Your task to perform on an android device: Search for Mexican restaurants on Maps Image 0: 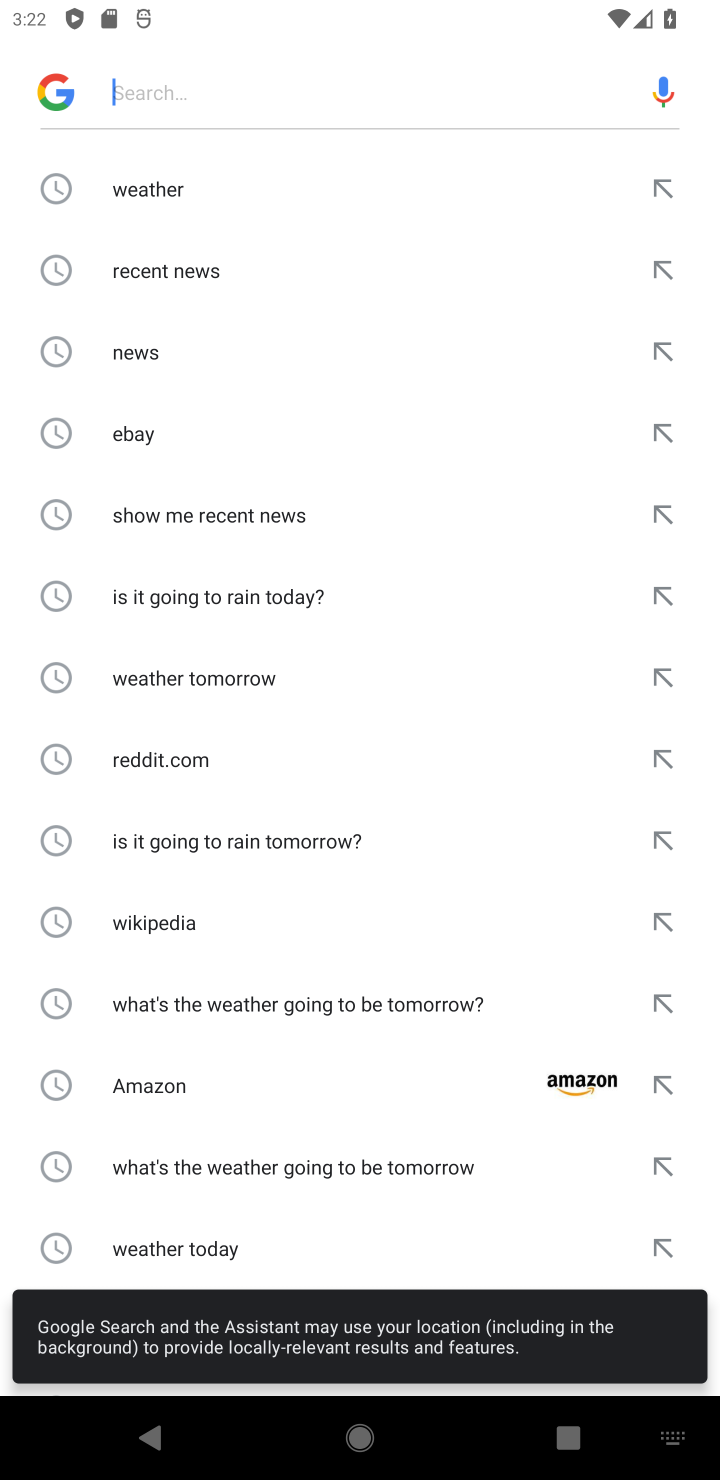
Step 0: press home button
Your task to perform on an android device: Search for Mexican restaurants on Maps Image 1: 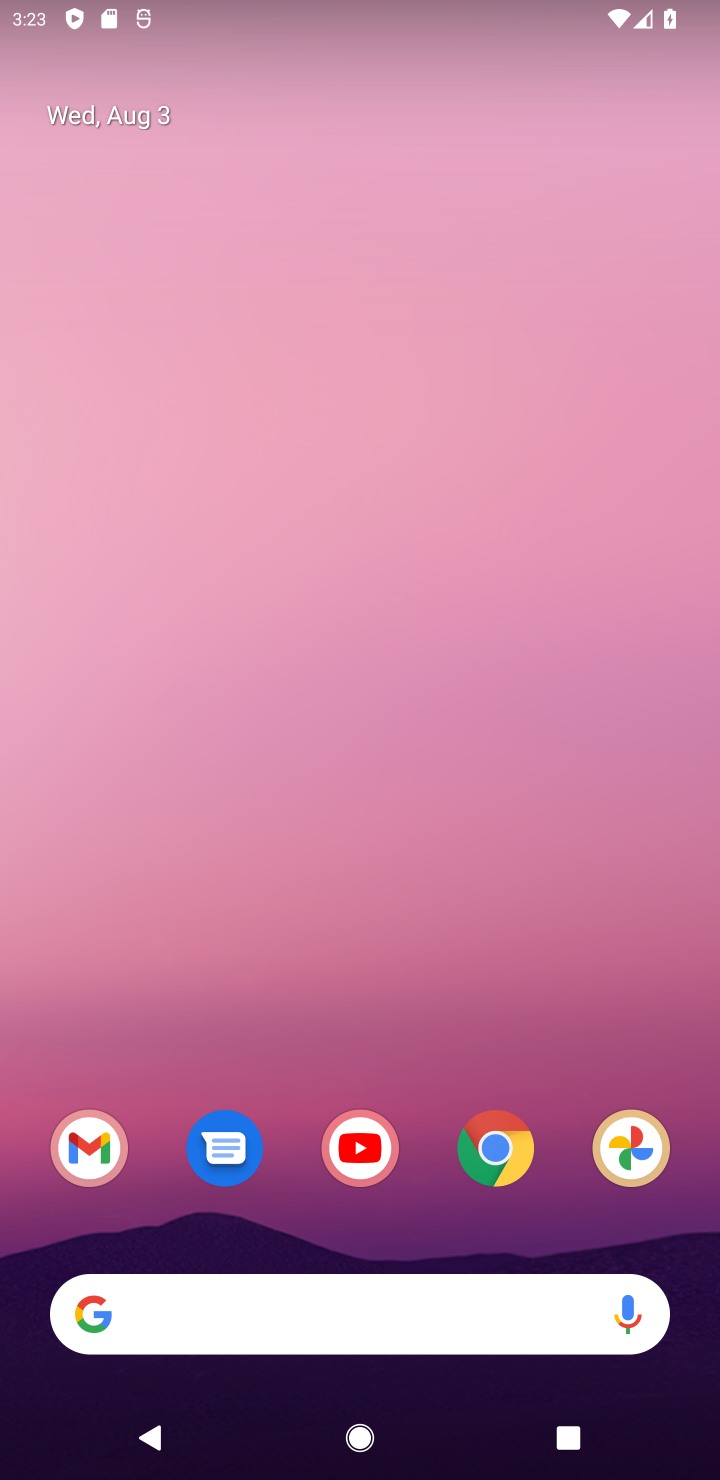
Step 1: drag from (413, 1112) to (418, 126)
Your task to perform on an android device: Search for Mexican restaurants on Maps Image 2: 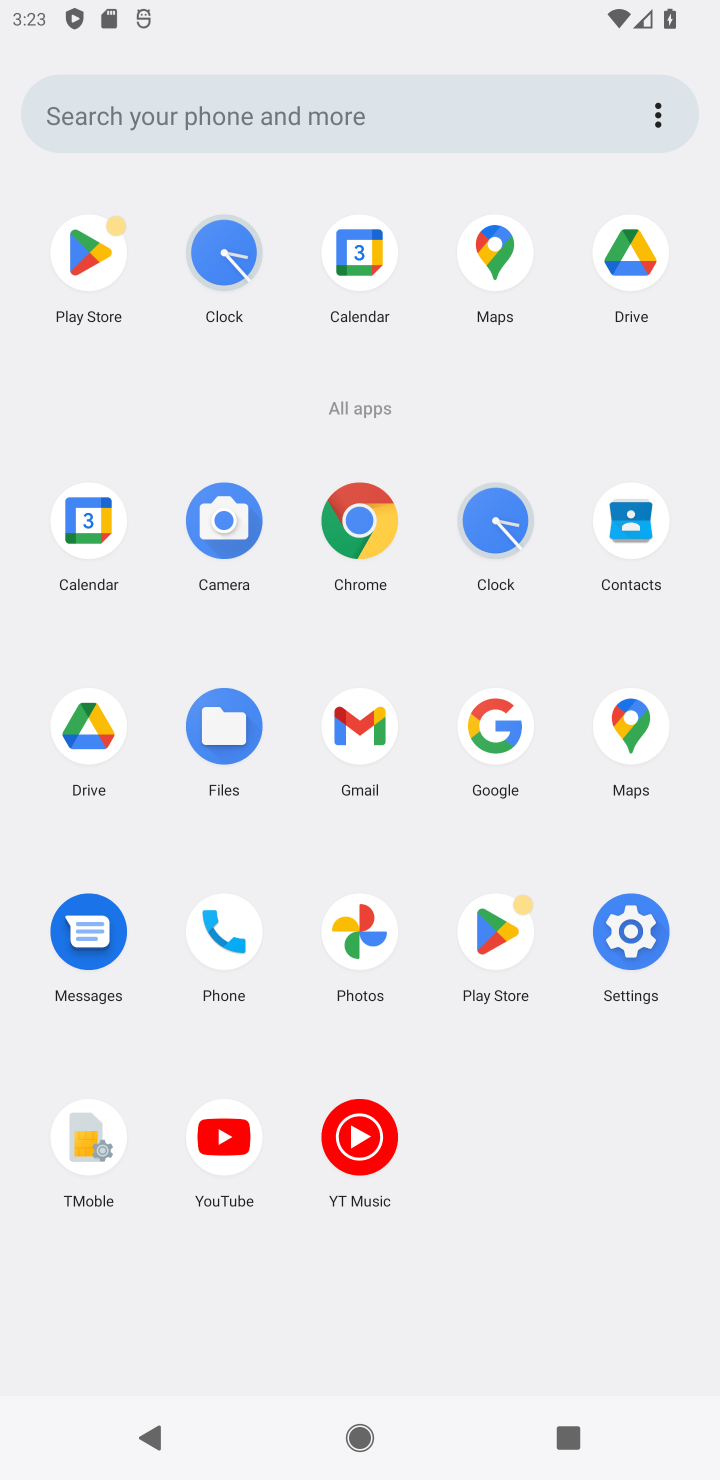
Step 2: click (502, 249)
Your task to perform on an android device: Search for Mexican restaurants on Maps Image 3: 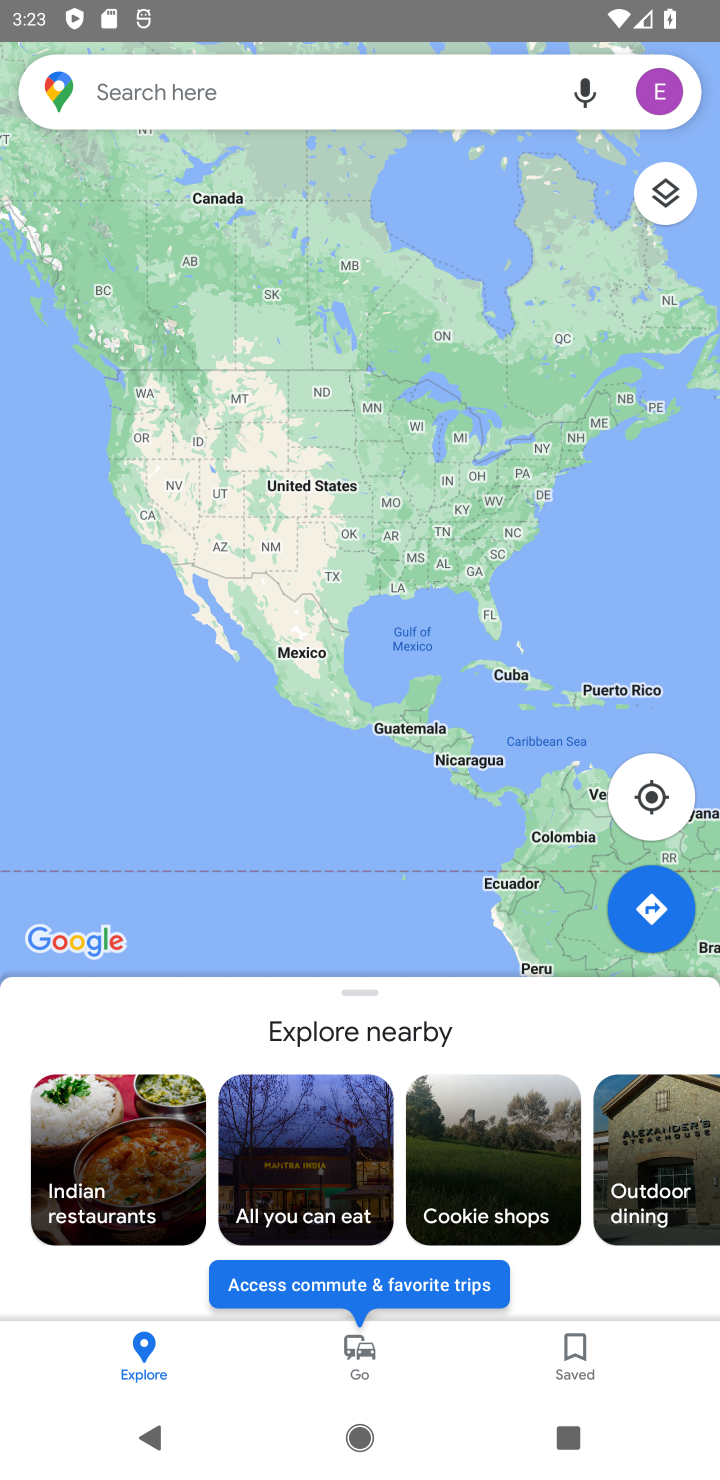
Step 3: click (332, 86)
Your task to perform on an android device: Search for Mexican restaurants on Maps Image 4: 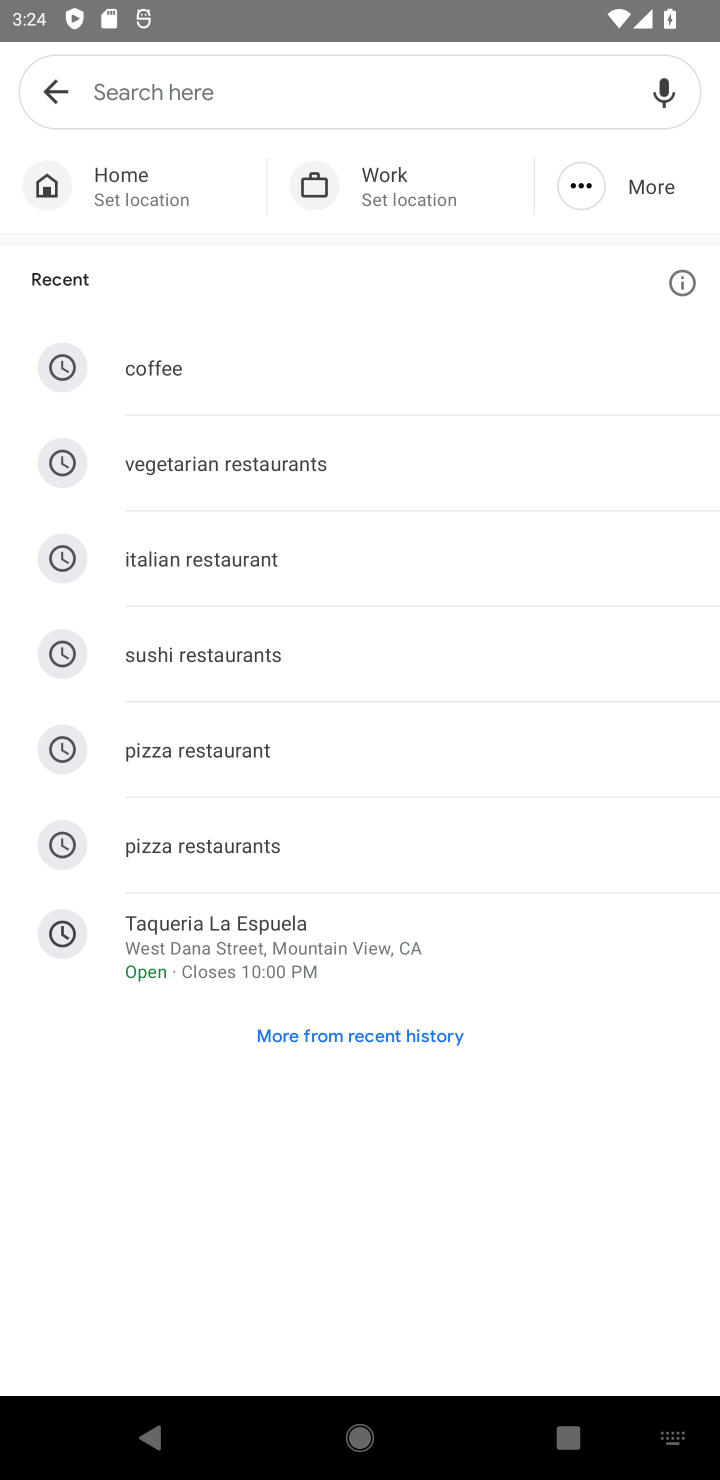
Step 4: type "mexican restaurants"
Your task to perform on an android device: Search for Mexican restaurants on Maps Image 5: 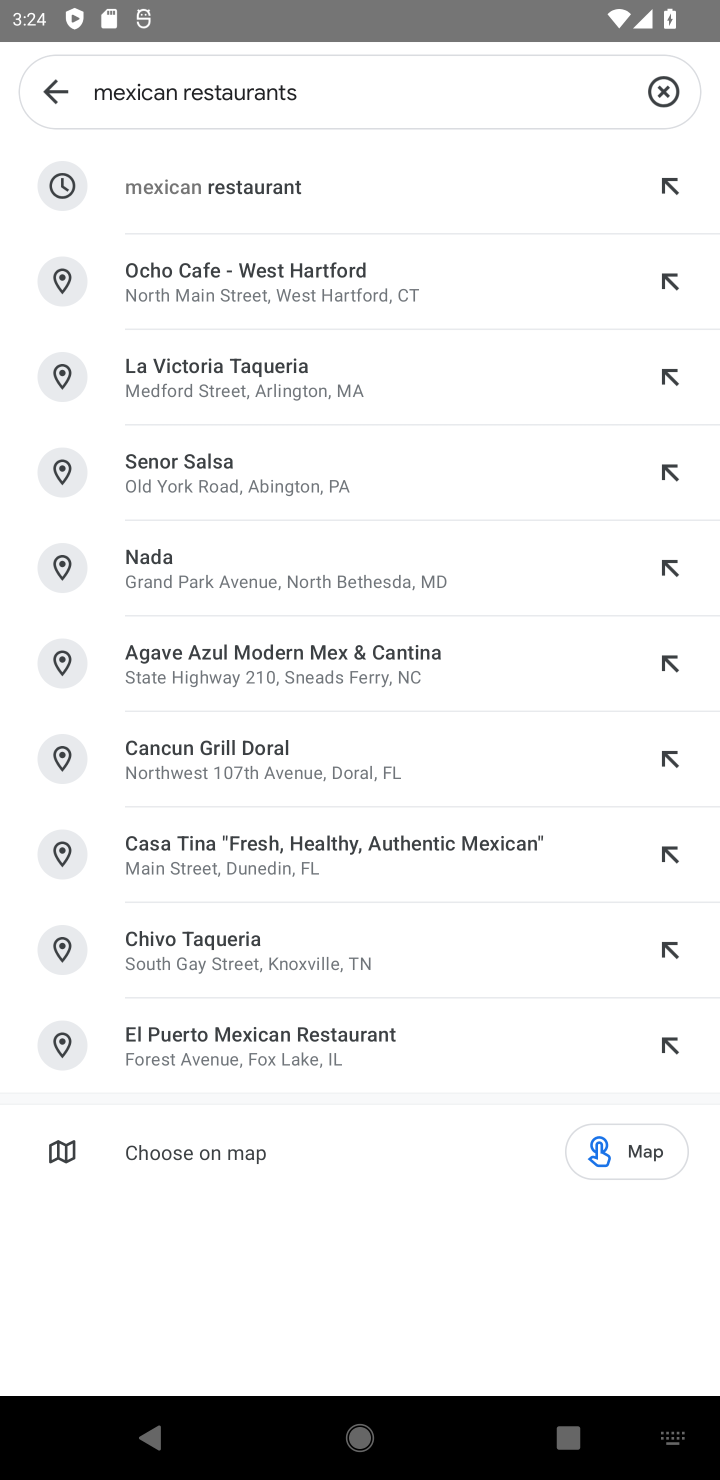
Step 5: click (424, 193)
Your task to perform on an android device: Search for Mexican restaurants on Maps Image 6: 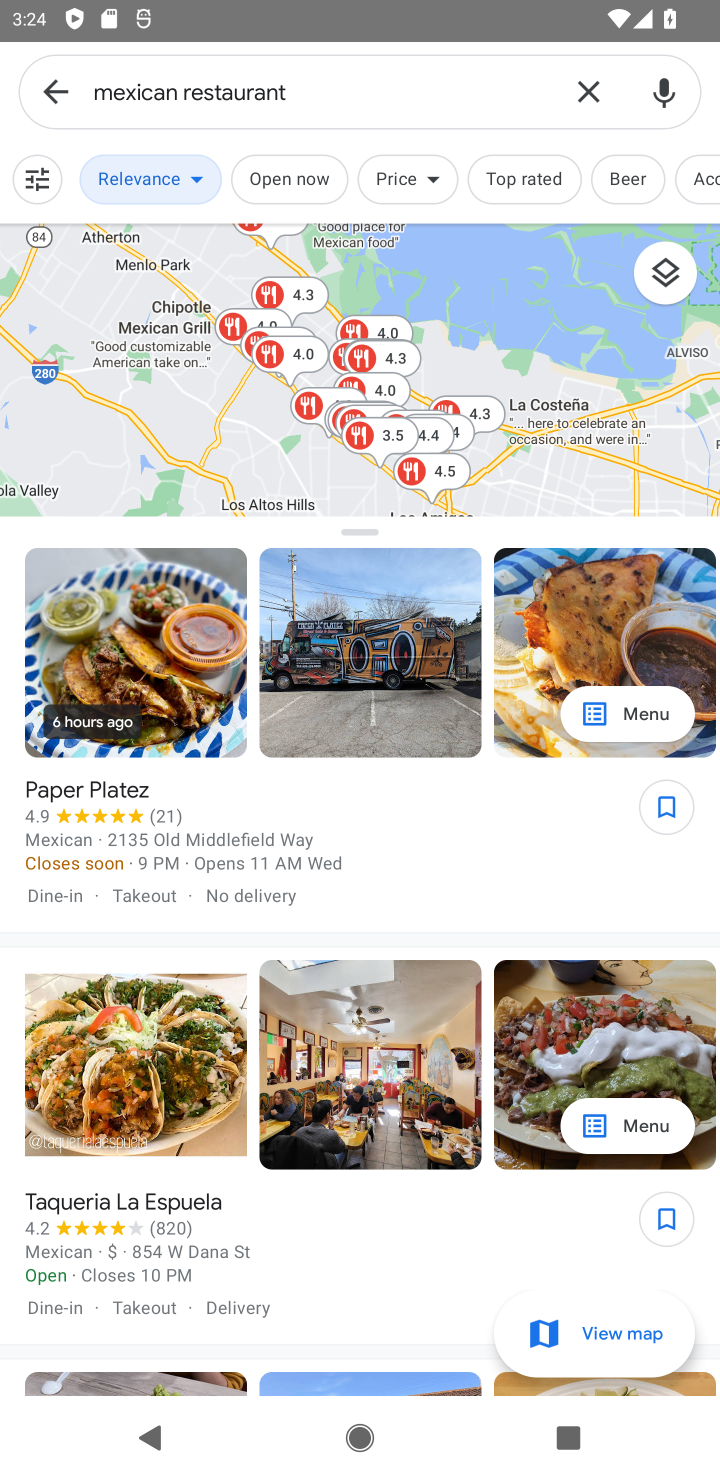
Step 6: task complete